Your task to perform on an android device: What's the weather going to be this weekend? Image 0: 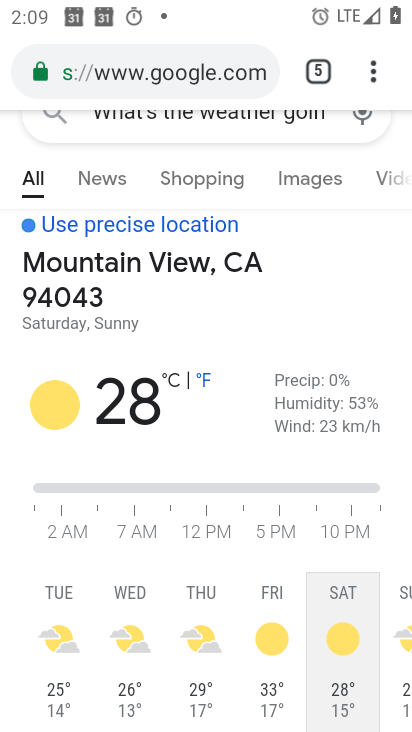
Step 0: task complete